Your task to perform on an android device: turn on data saver in the chrome app Image 0: 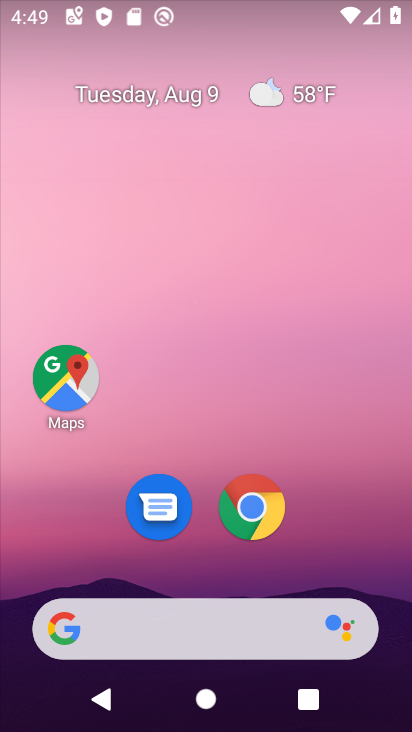
Step 0: click (257, 504)
Your task to perform on an android device: turn on data saver in the chrome app Image 1: 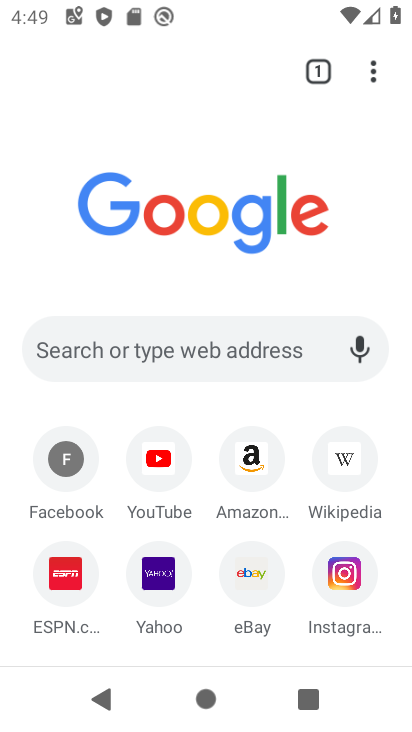
Step 1: click (373, 72)
Your task to perform on an android device: turn on data saver in the chrome app Image 2: 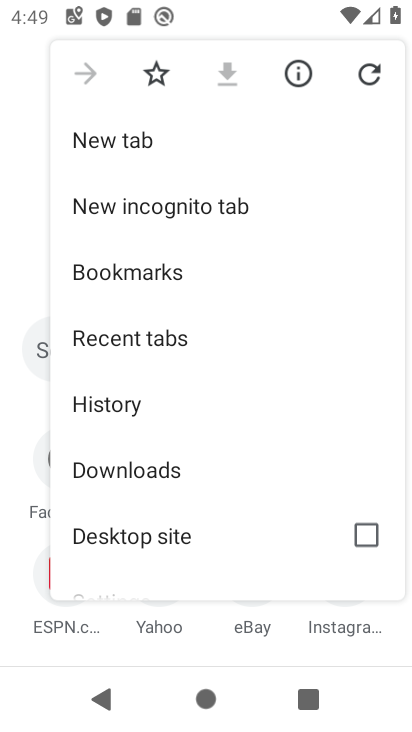
Step 2: drag from (223, 468) to (153, 181)
Your task to perform on an android device: turn on data saver in the chrome app Image 3: 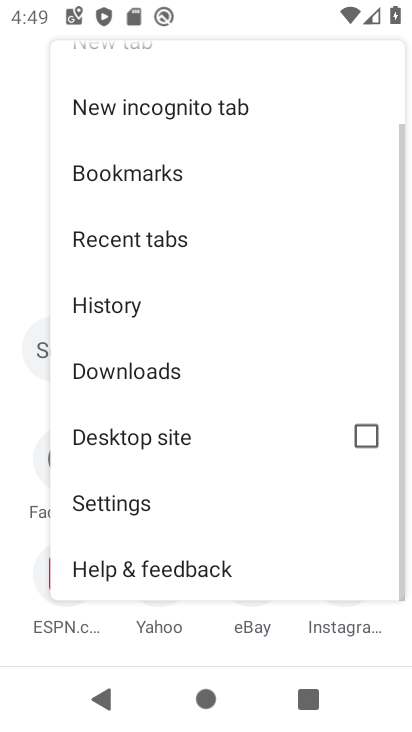
Step 3: click (159, 498)
Your task to perform on an android device: turn on data saver in the chrome app Image 4: 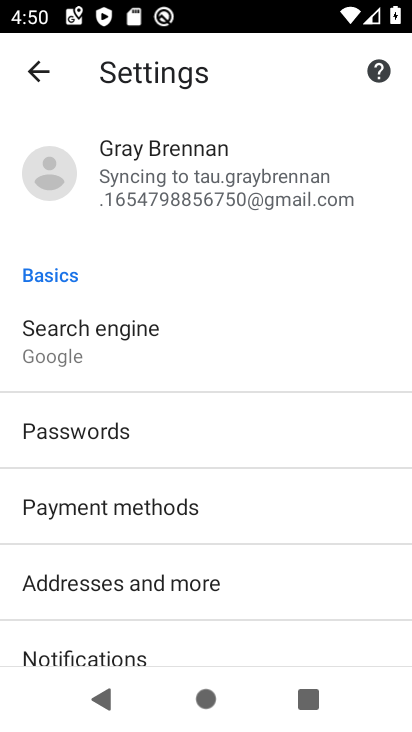
Step 4: drag from (159, 653) to (119, 349)
Your task to perform on an android device: turn on data saver in the chrome app Image 5: 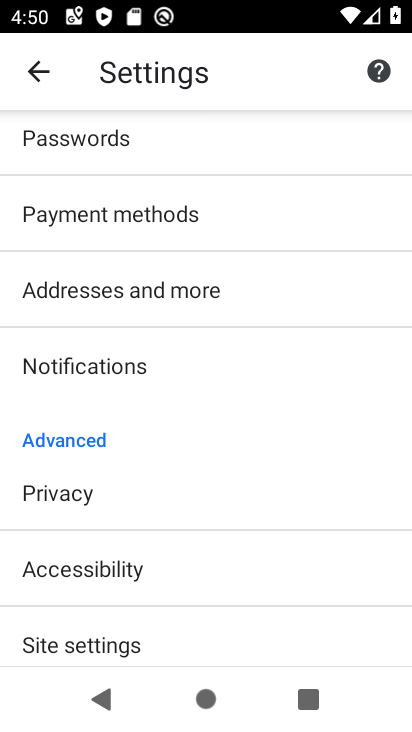
Step 5: drag from (129, 609) to (64, 254)
Your task to perform on an android device: turn on data saver in the chrome app Image 6: 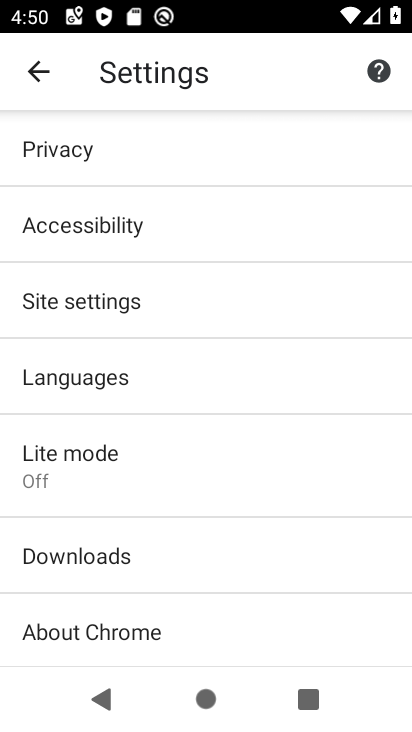
Step 6: click (99, 481)
Your task to perform on an android device: turn on data saver in the chrome app Image 7: 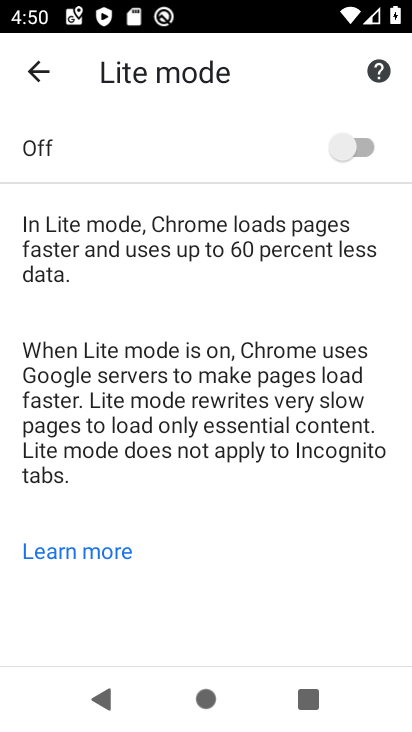
Step 7: click (351, 152)
Your task to perform on an android device: turn on data saver in the chrome app Image 8: 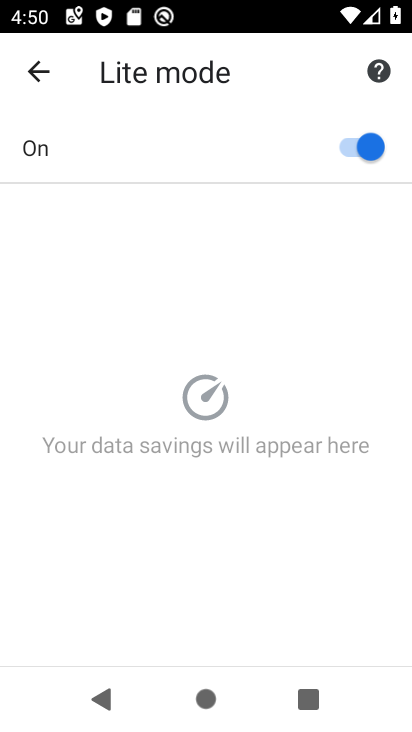
Step 8: task complete